Your task to perform on an android device: Go to Google Image 0: 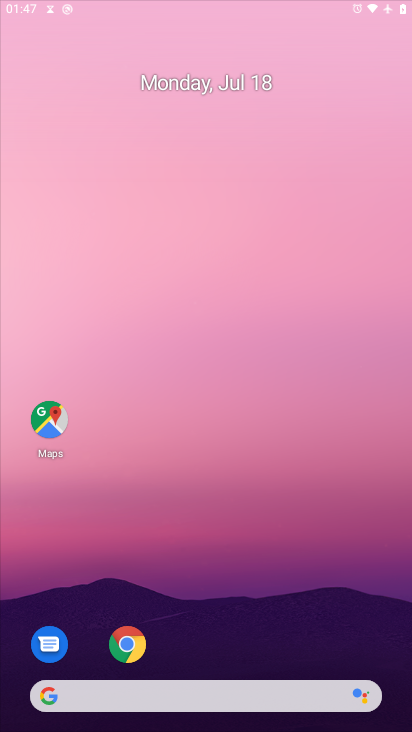
Step 0: press home button
Your task to perform on an android device: Go to Google Image 1: 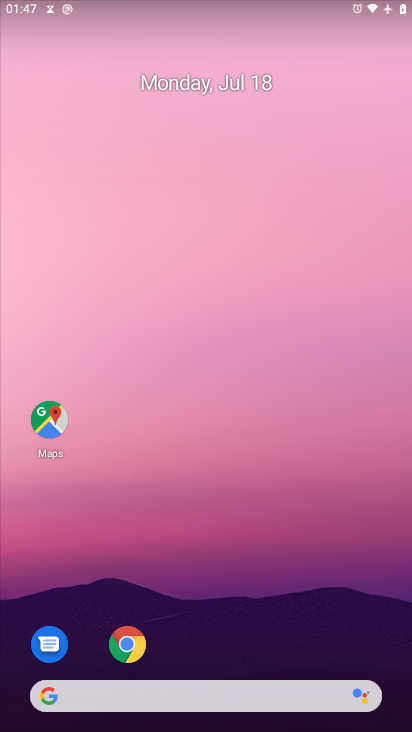
Step 1: click (57, 694)
Your task to perform on an android device: Go to Google Image 2: 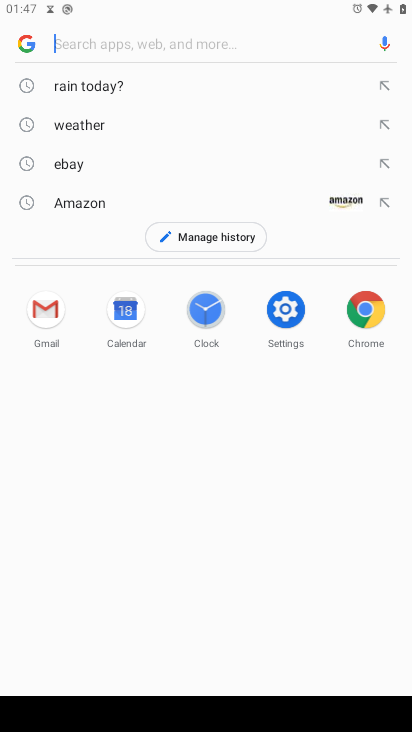
Step 2: task complete